Your task to perform on an android device: Open settings Image 0: 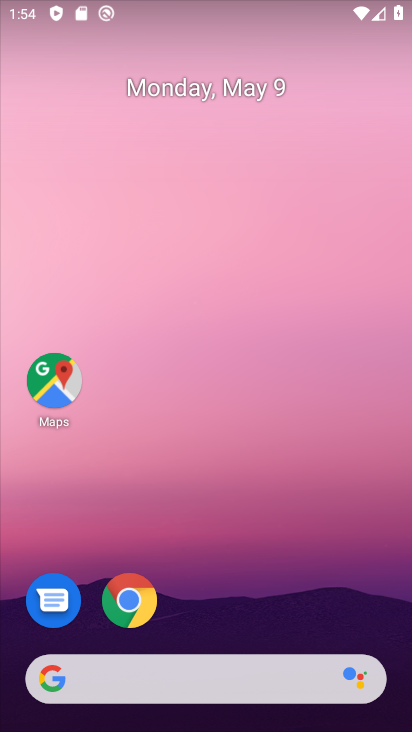
Step 0: drag from (267, 582) to (242, 36)
Your task to perform on an android device: Open settings Image 1: 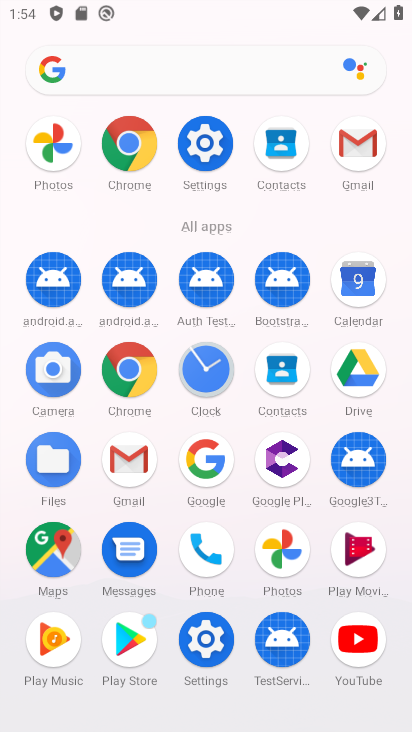
Step 1: drag from (13, 555) to (26, 249)
Your task to perform on an android device: Open settings Image 2: 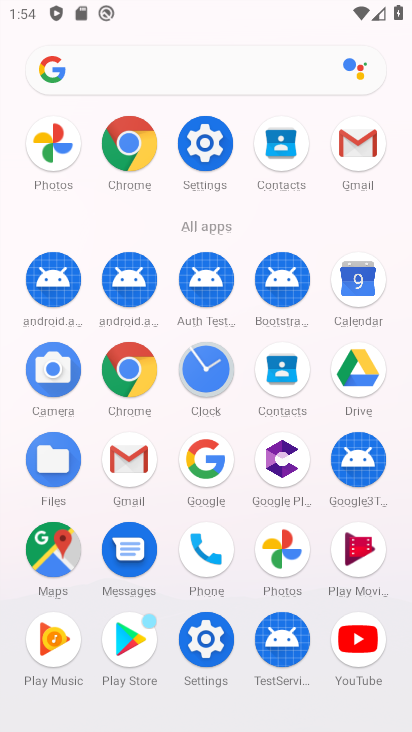
Step 2: click (202, 636)
Your task to perform on an android device: Open settings Image 3: 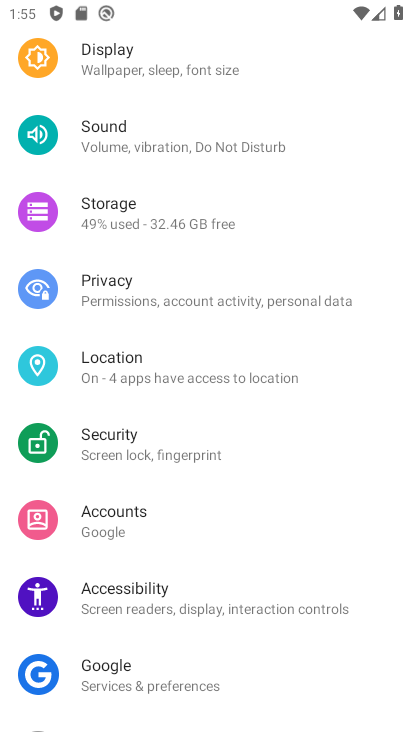
Step 3: task complete